Your task to perform on an android device: Search for a runner rug on Crate & Barrel. Image 0: 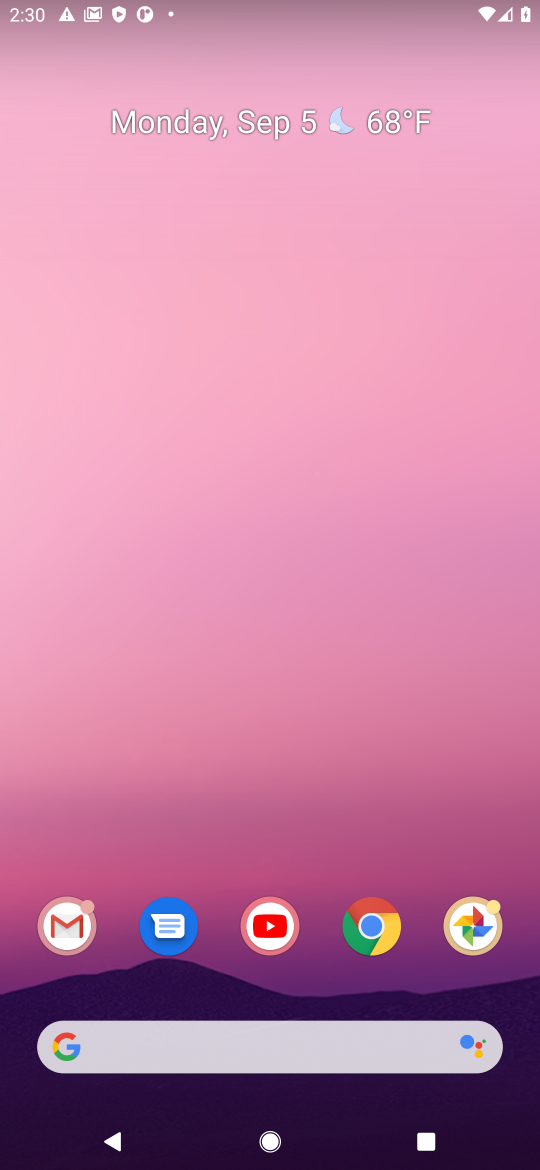
Step 0: task complete